Your task to perform on an android device: What is the recent news? Image 0: 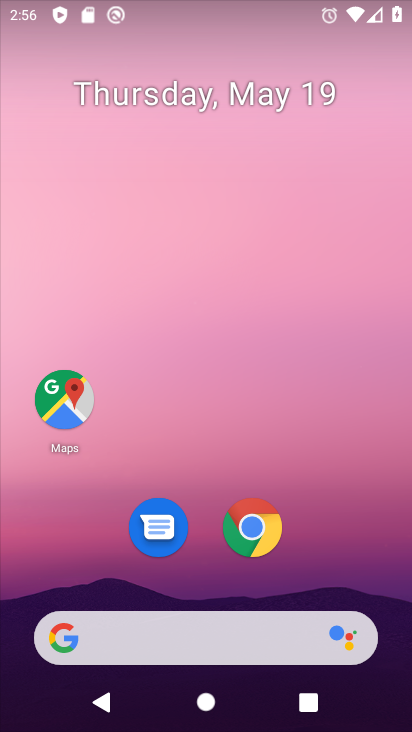
Step 0: click (169, 640)
Your task to perform on an android device: What is the recent news? Image 1: 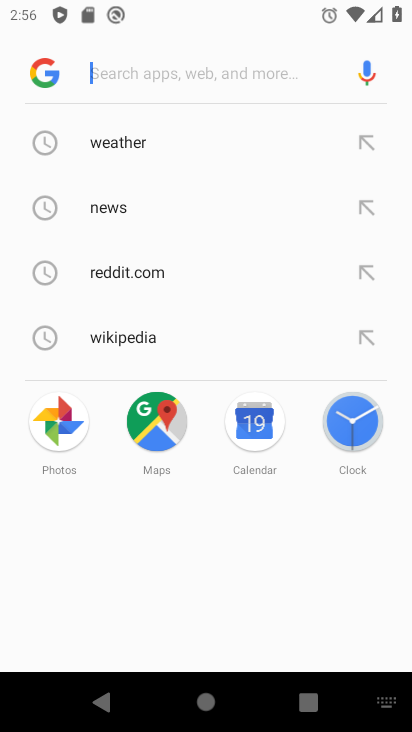
Step 1: type "recent news"
Your task to perform on an android device: What is the recent news? Image 2: 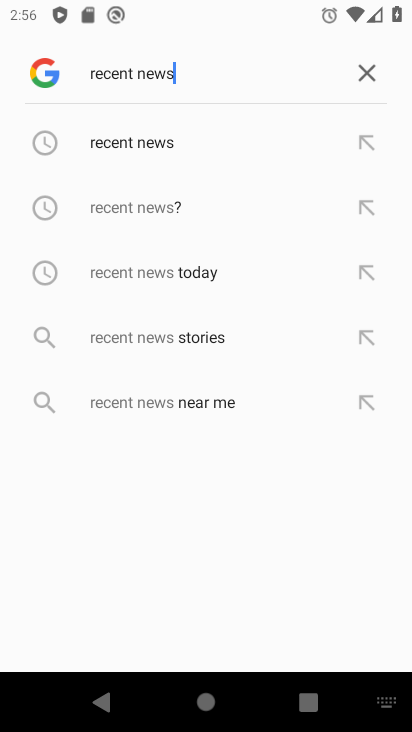
Step 2: click (137, 133)
Your task to perform on an android device: What is the recent news? Image 3: 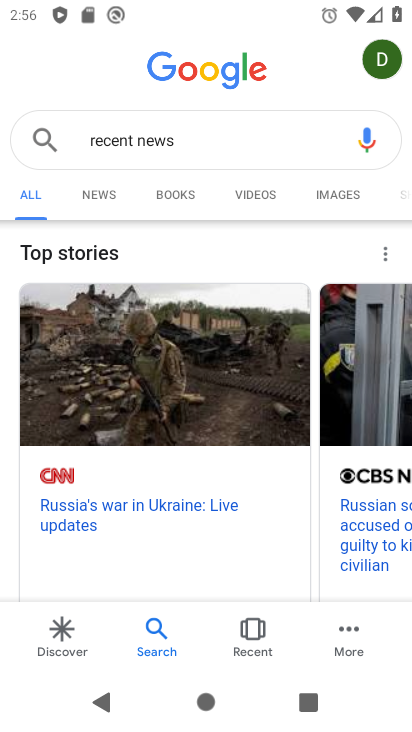
Step 3: task complete